Your task to perform on an android device: change the clock display to show seconds Image 0: 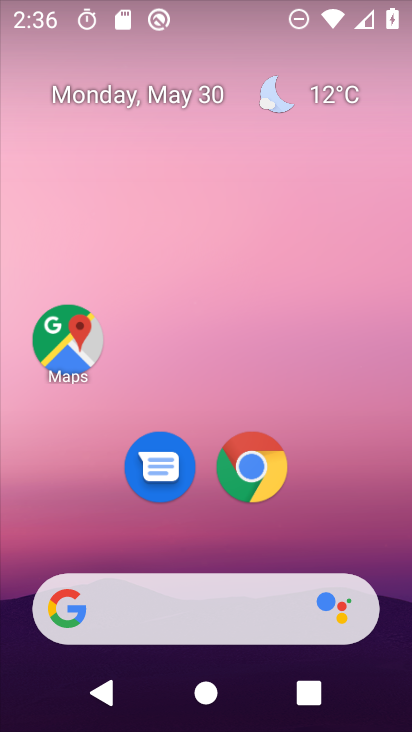
Step 0: drag from (382, 648) to (354, 259)
Your task to perform on an android device: change the clock display to show seconds Image 1: 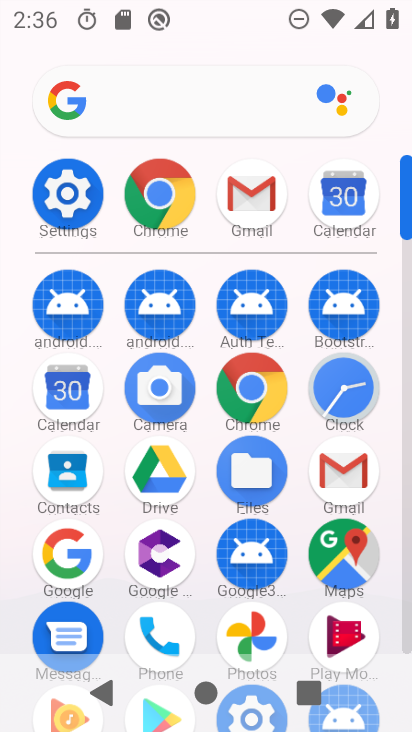
Step 1: click (352, 369)
Your task to perform on an android device: change the clock display to show seconds Image 2: 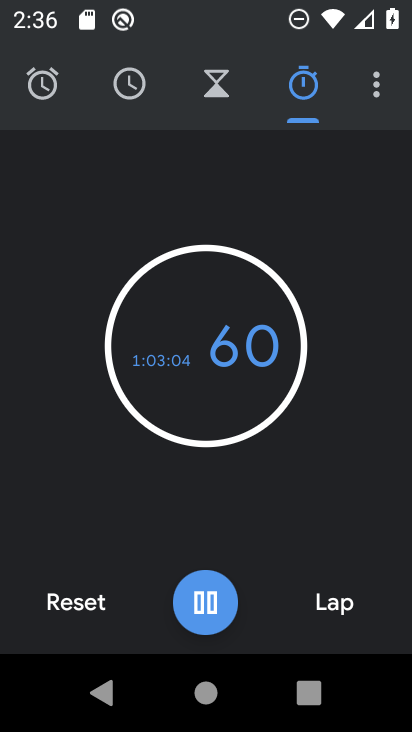
Step 2: click (372, 86)
Your task to perform on an android device: change the clock display to show seconds Image 3: 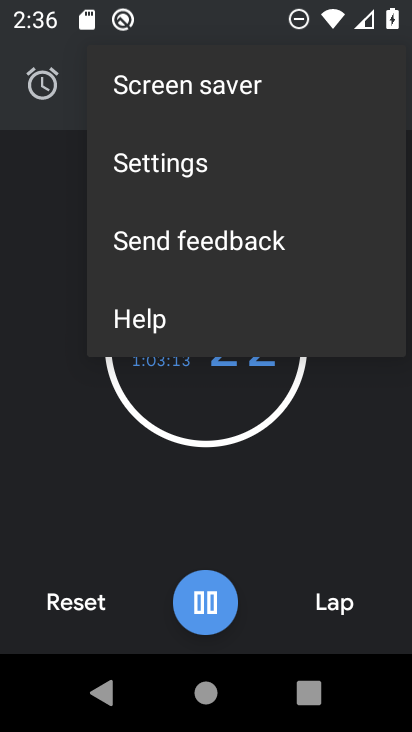
Step 3: click (182, 170)
Your task to perform on an android device: change the clock display to show seconds Image 4: 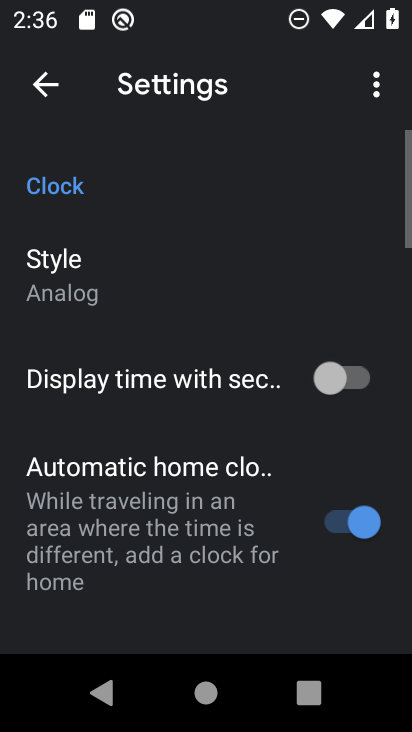
Step 4: click (351, 381)
Your task to perform on an android device: change the clock display to show seconds Image 5: 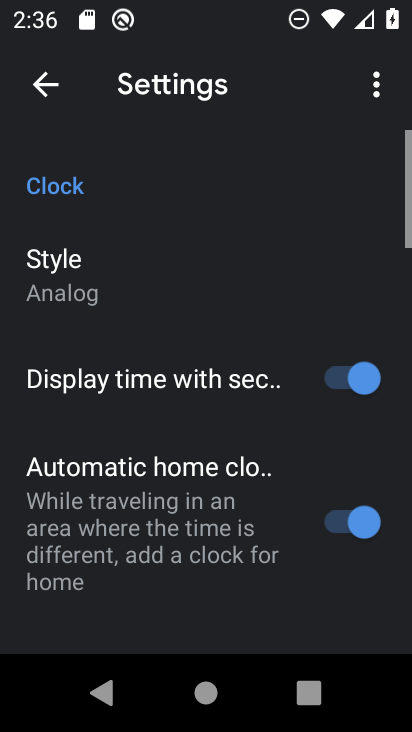
Step 5: task complete